Your task to perform on an android device: see sites visited before in the chrome app Image 0: 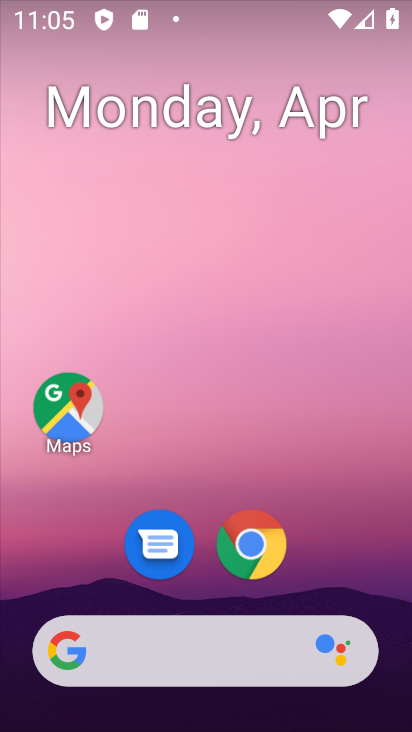
Step 0: click (261, 542)
Your task to perform on an android device: see sites visited before in the chrome app Image 1: 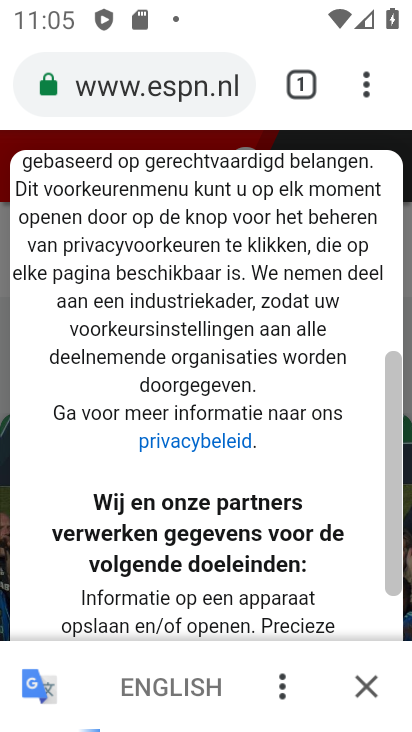
Step 1: click (367, 85)
Your task to perform on an android device: see sites visited before in the chrome app Image 2: 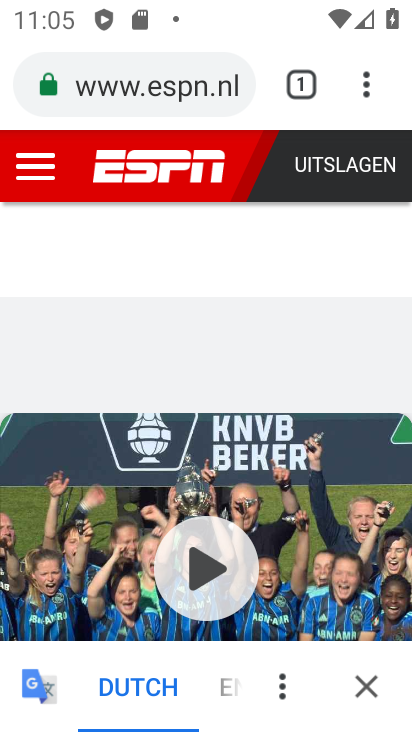
Step 2: click (367, 89)
Your task to perform on an android device: see sites visited before in the chrome app Image 3: 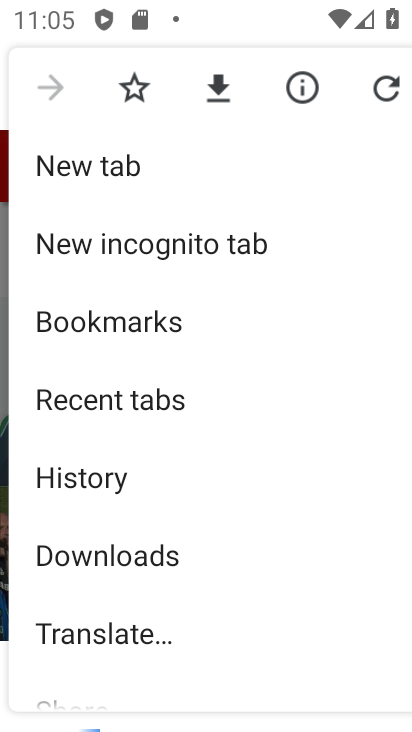
Step 3: click (86, 487)
Your task to perform on an android device: see sites visited before in the chrome app Image 4: 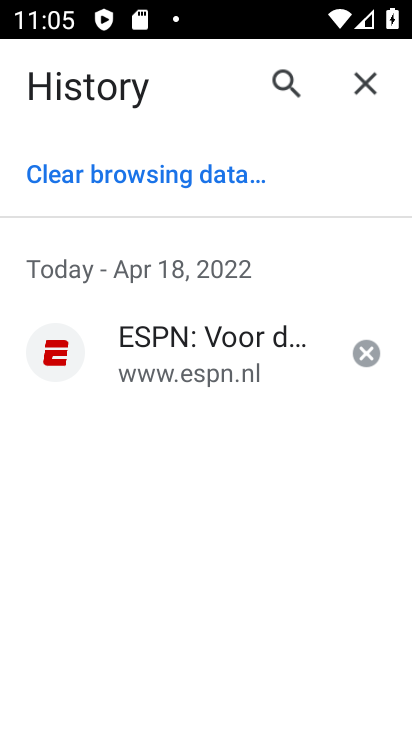
Step 4: task complete